Your task to perform on an android device: empty trash in google photos Image 0: 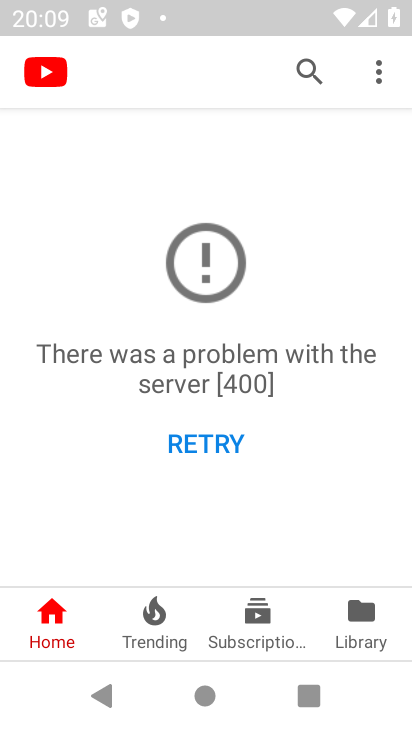
Step 0: press home button
Your task to perform on an android device: empty trash in google photos Image 1: 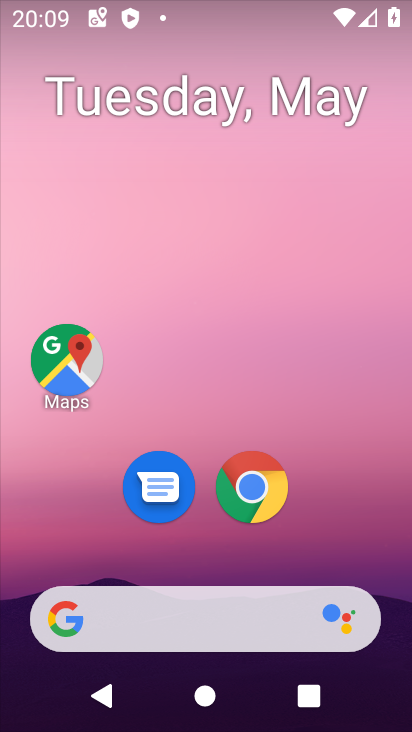
Step 1: drag from (328, 508) to (332, 212)
Your task to perform on an android device: empty trash in google photos Image 2: 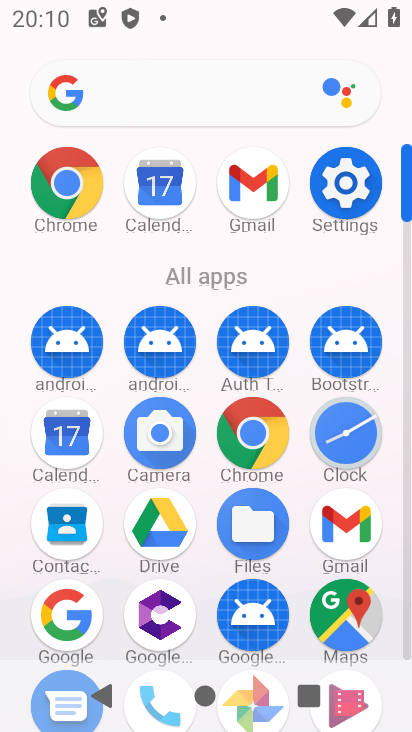
Step 2: click (406, 650)
Your task to perform on an android device: empty trash in google photos Image 3: 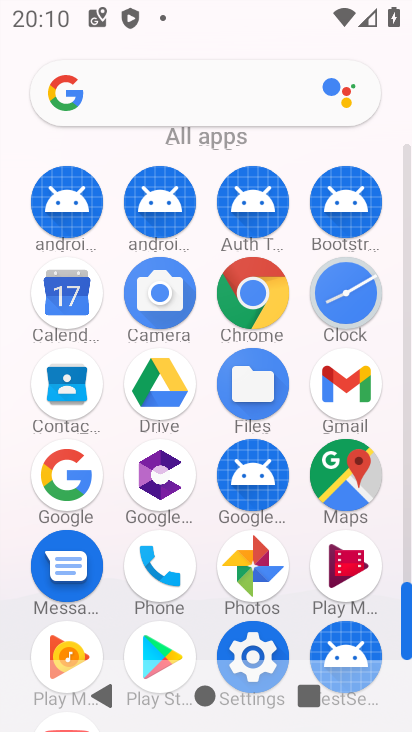
Step 3: click (244, 592)
Your task to perform on an android device: empty trash in google photos Image 4: 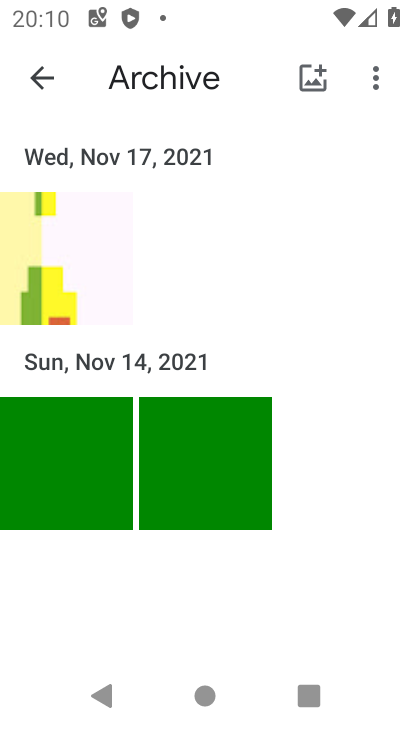
Step 4: click (52, 68)
Your task to perform on an android device: empty trash in google photos Image 5: 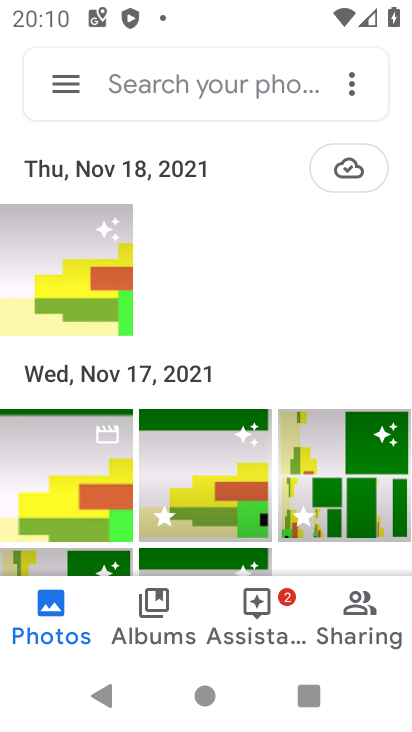
Step 5: click (65, 98)
Your task to perform on an android device: empty trash in google photos Image 6: 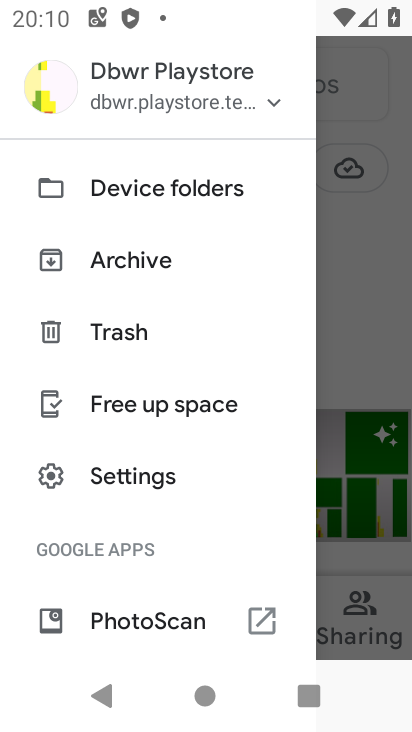
Step 6: click (77, 325)
Your task to perform on an android device: empty trash in google photos Image 7: 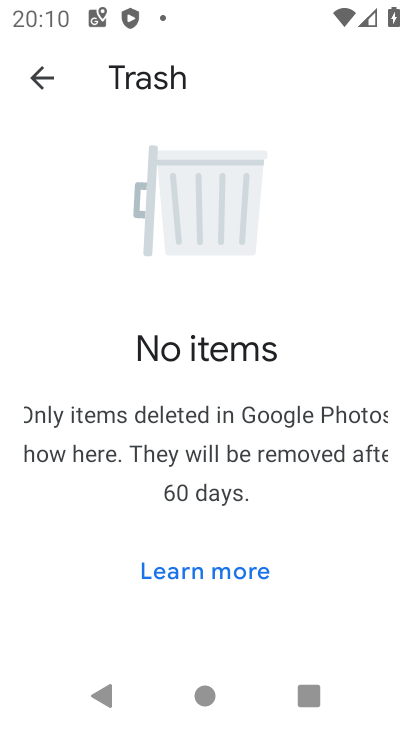
Step 7: task complete